Your task to perform on an android device: add a contact in the contacts app Image 0: 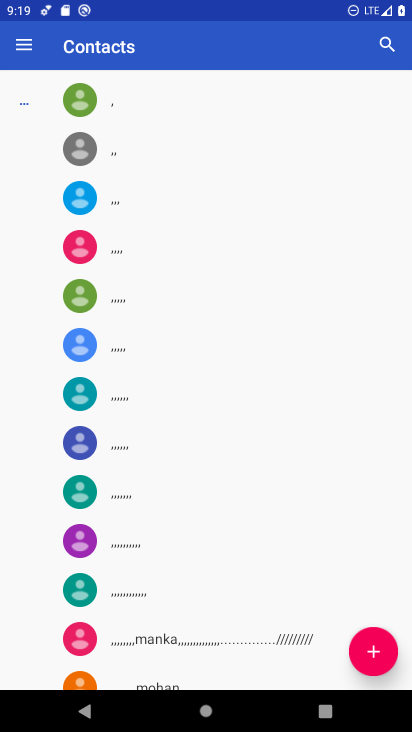
Step 0: press home button
Your task to perform on an android device: add a contact in the contacts app Image 1: 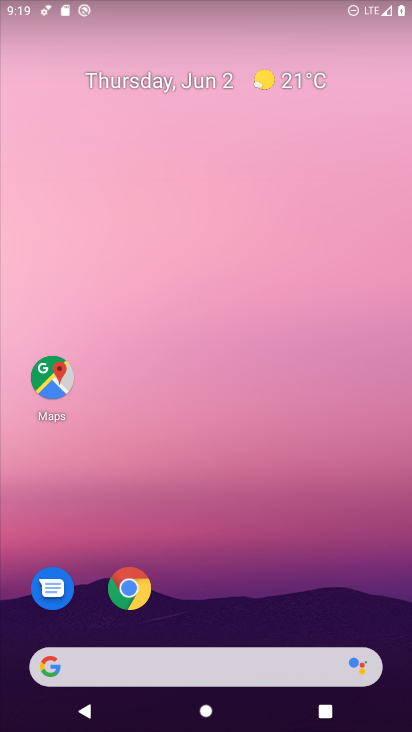
Step 1: drag from (190, 595) to (198, 285)
Your task to perform on an android device: add a contact in the contacts app Image 2: 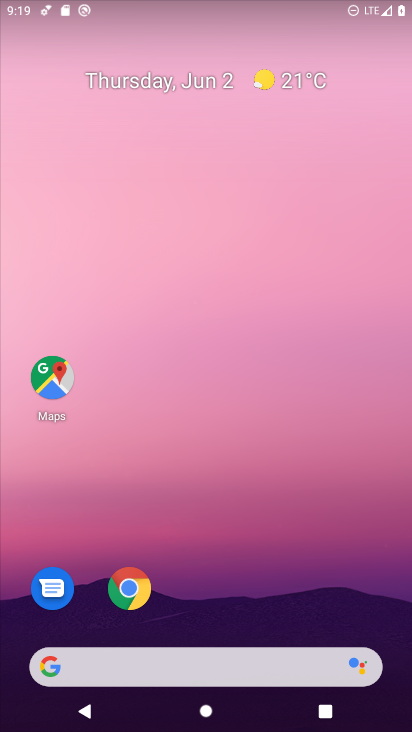
Step 2: drag from (219, 495) to (239, 342)
Your task to perform on an android device: add a contact in the contacts app Image 3: 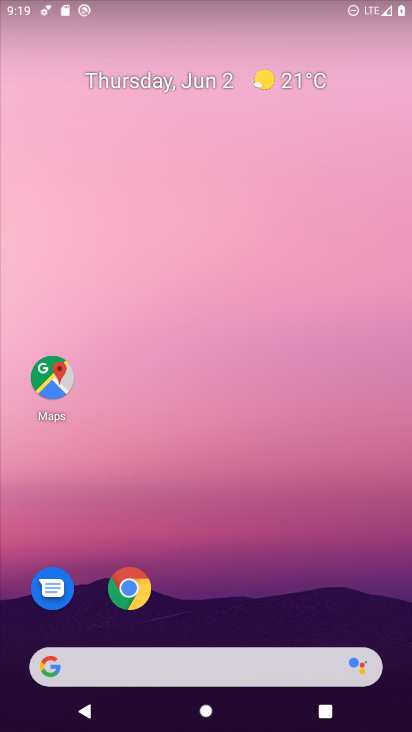
Step 3: drag from (234, 473) to (254, 275)
Your task to perform on an android device: add a contact in the contacts app Image 4: 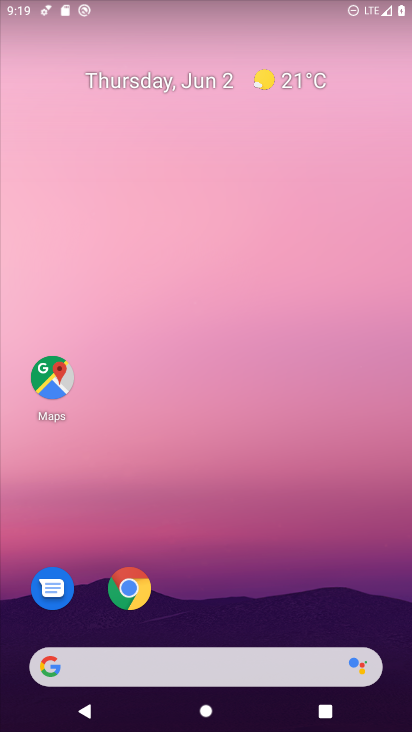
Step 4: drag from (250, 623) to (360, 3)
Your task to perform on an android device: add a contact in the contacts app Image 5: 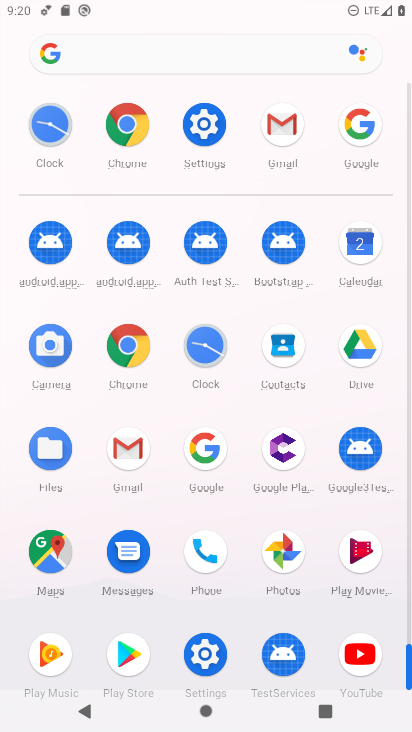
Step 5: click (287, 361)
Your task to perform on an android device: add a contact in the contacts app Image 6: 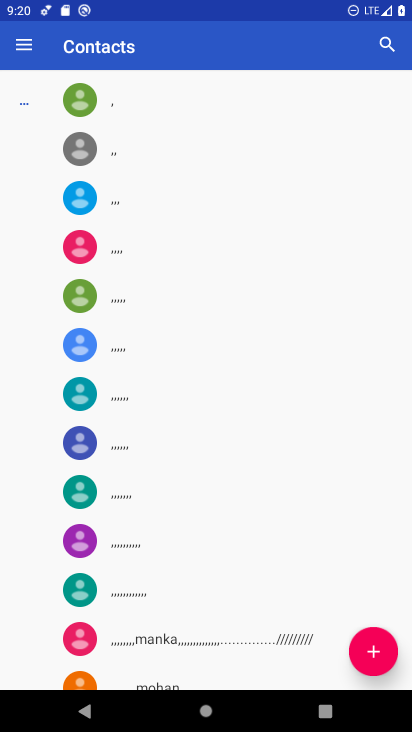
Step 6: click (385, 649)
Your task to perform on an android device: add a contact in the contacts app Image 7: 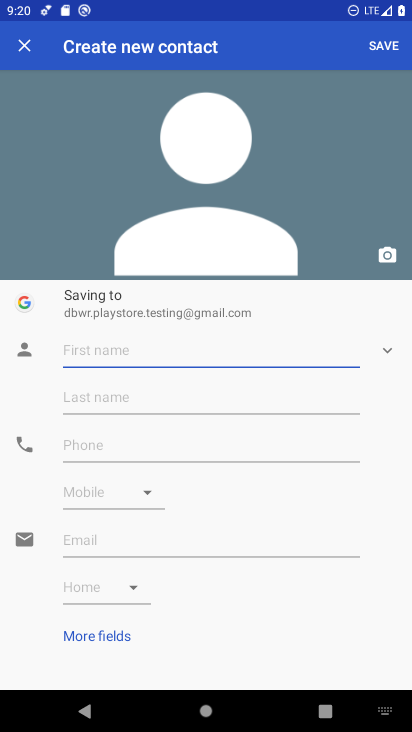
Step 7: type "mhvmvmnvm,"
Your task to perform on an android device: add a contact in the contacts app Image 8: 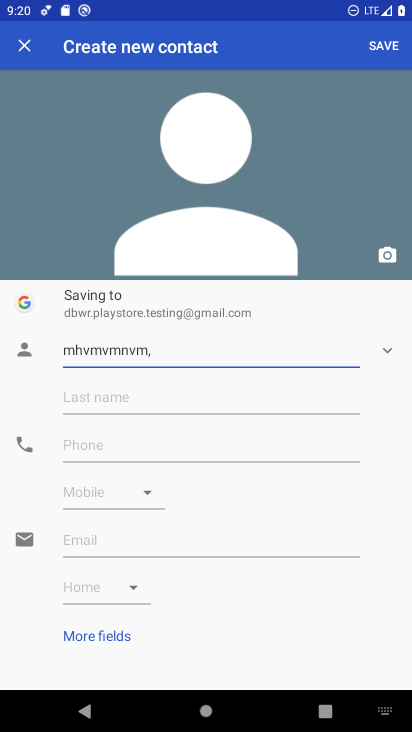
Step 8: click (160, 445)
Your task to perform on an android device: add a contact in the contacts app Image 9: 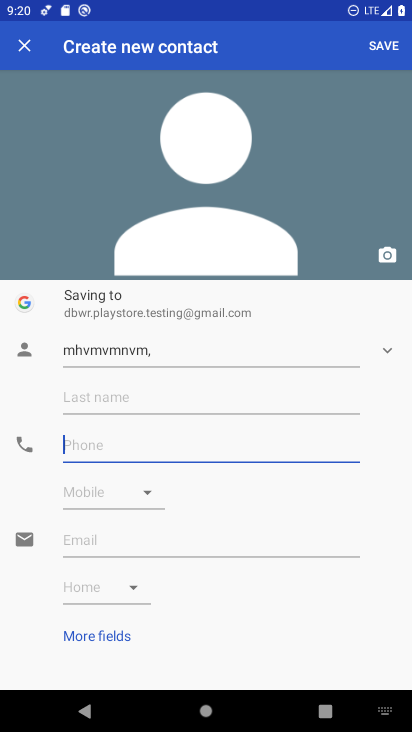
Step 9: type "98767857"
Your task to perform on an android device: add a contact in the contacts app Image 10: 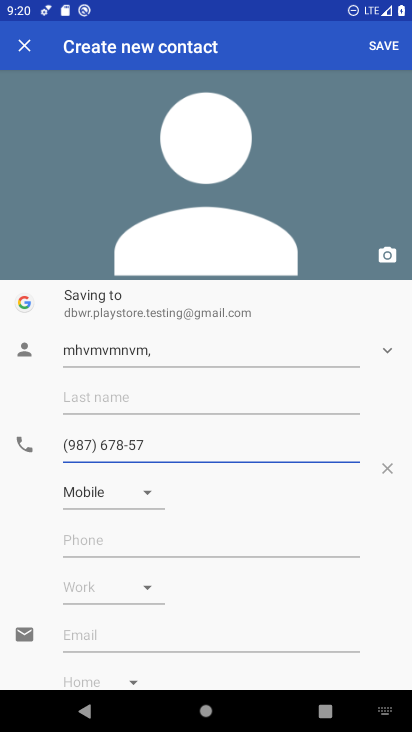
Step 10: click (396, 45)
Your task to perform on an android device: add a contact in the contacts app Image 11: 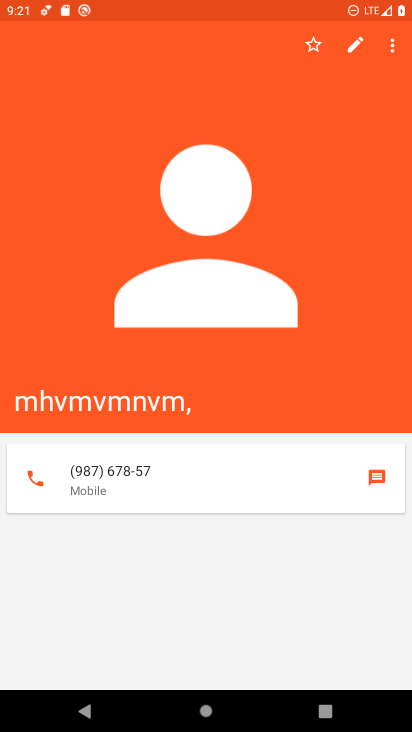
Step 11: task complete